Your task to perform on an android device: turn on bluetooth scan Image 0: 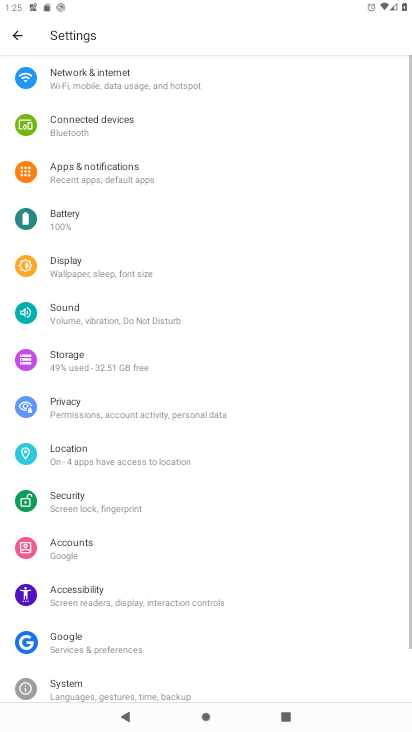
Step 0: click (101, 450)
Your task to perform on an android device: turn on bluetooth scan Image 1: 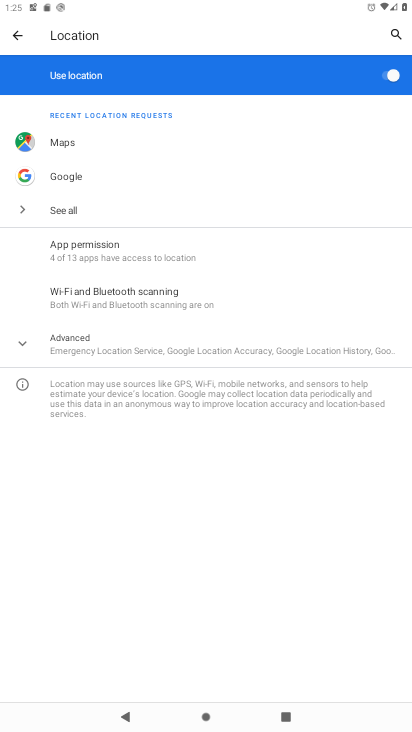
Step 1: click (188, 305)
Your task to perform on an android device: turn on bluetooth scan Image 2: 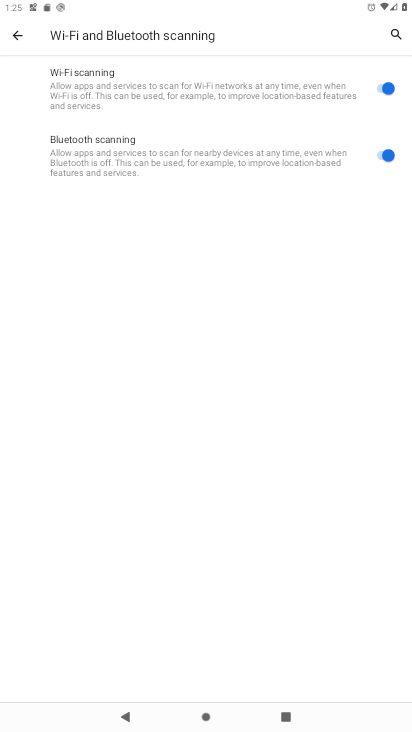
Step 2: task complete